Your task to perform on an android device: Open eBay Image 0: 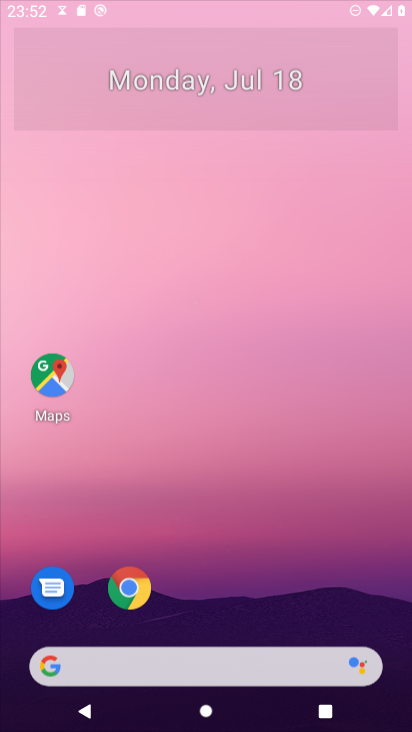
Step 0: press home button
Your task to perform on an android device: Open eBay Image 1: 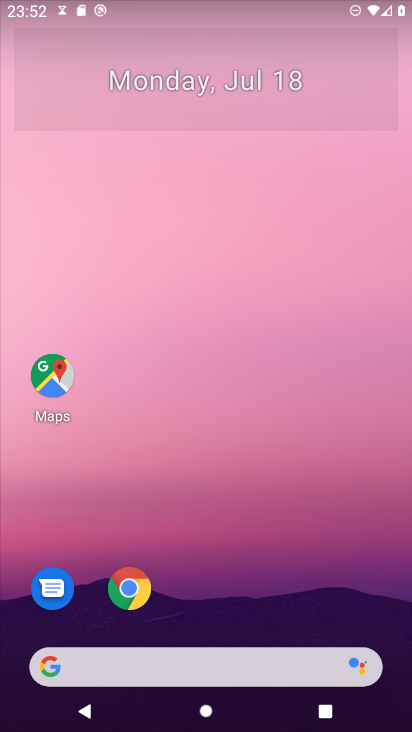
Step 1: click (49, 663)
Your task to perform on an android device: Open eBay Image 2: 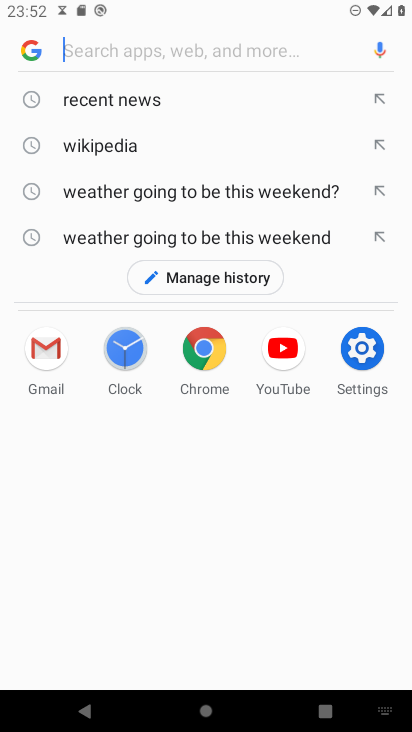
Step 2: type "eBay"
Your task to perform on an android device: Open eBay Image 3: 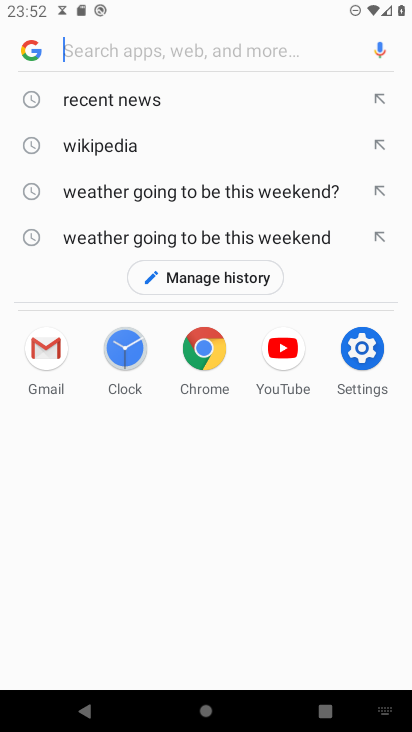
Step 3: click (136, 51)
Your task to perform on an android device: Open eBay Image 4: 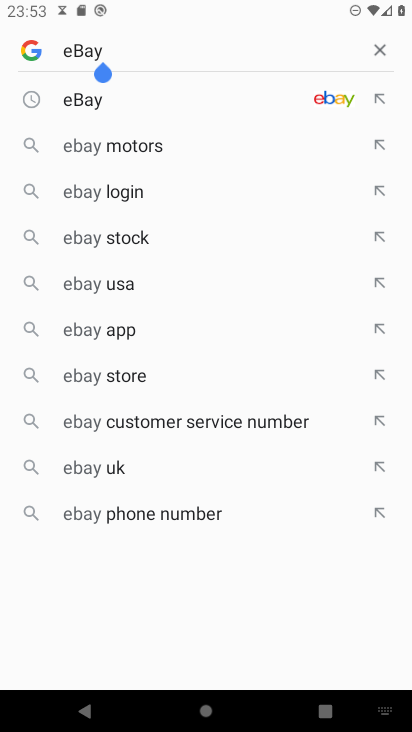
Step 4: press enter
Your task to perform on an android device: Open eBay Image 5: 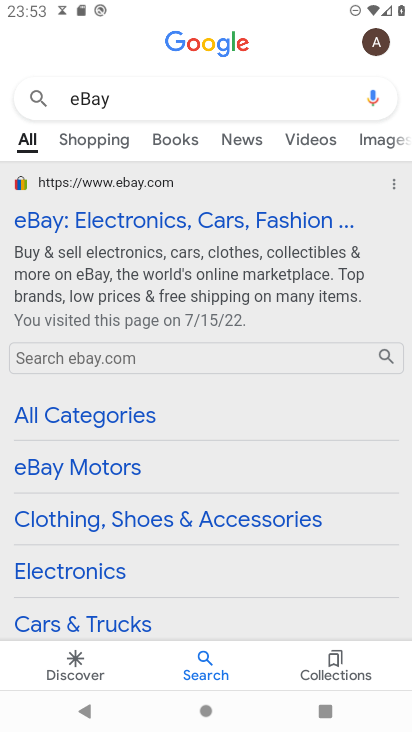
Step 5: click (119, 220)
Your task to perform on an android device: Open eBay Image 6: 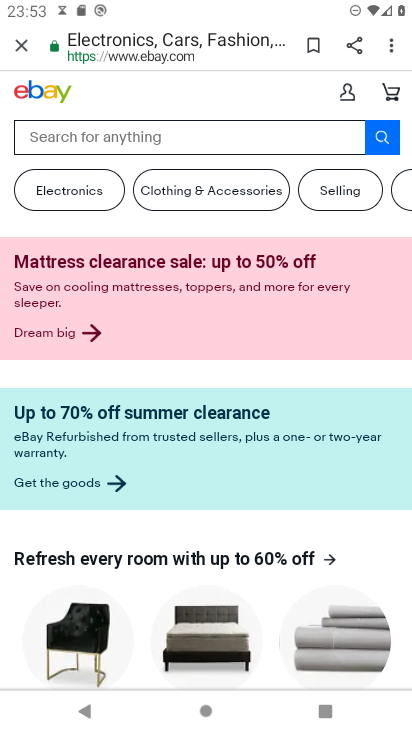
Step 6: task complete